Your task to perform on an android device: Open calendar and show me the second week of next month Image 0: 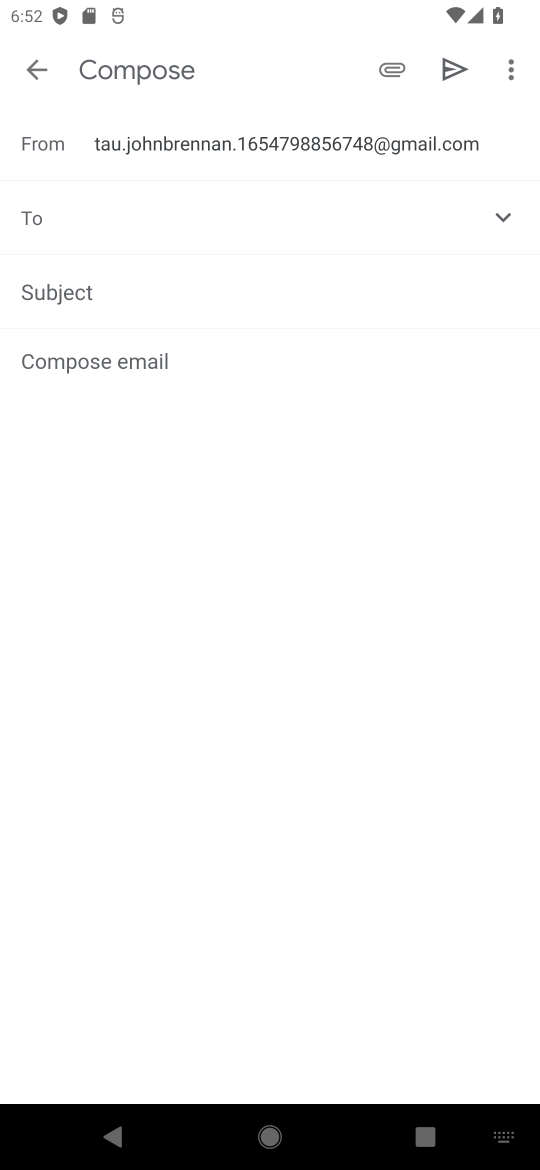
Step 0: press home button
Your task to perform on an android device: Open calendar and show me the second week of next month Image 1: 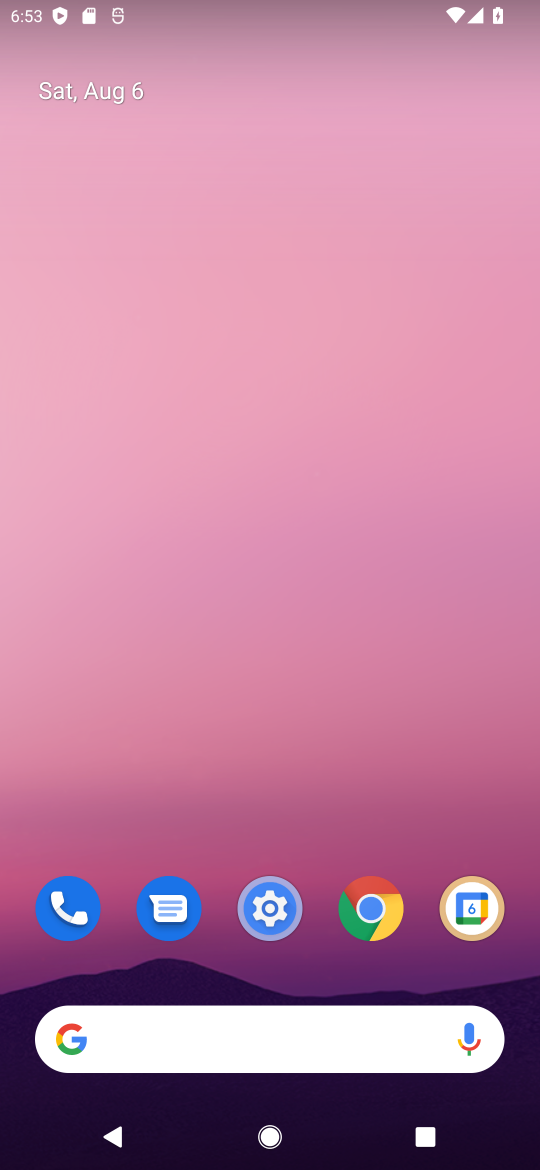
Step 1: drag from (303, 863) to (353, 21)
Your task to perform on an android device: Open calendar and show me the second week of next month Image 2: 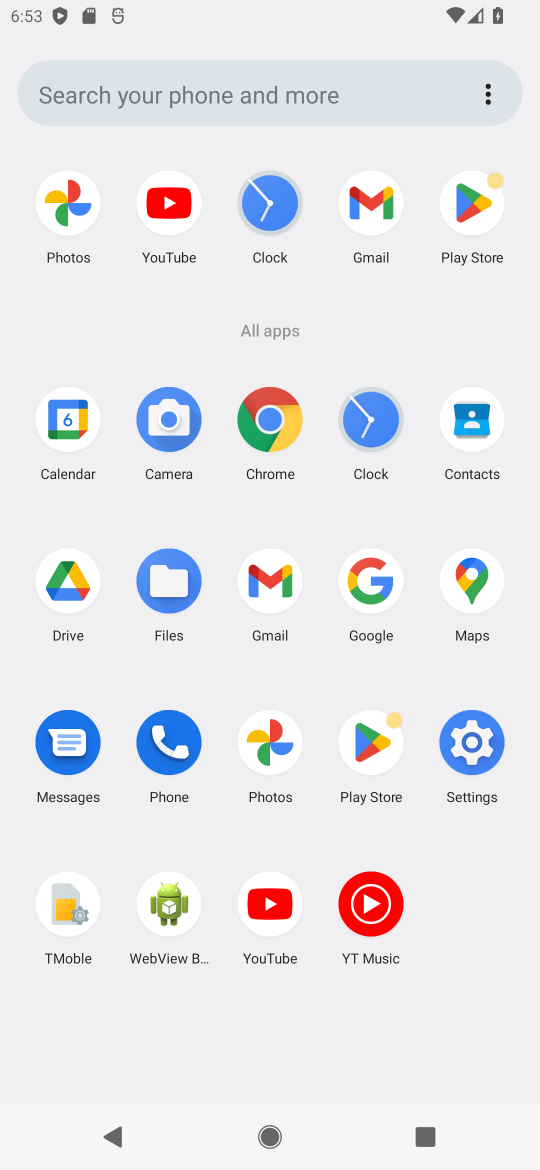
Step 2: click (72, 440)
Your task to perform on an android device: Open calendar and show me the second week of next month Image 3: 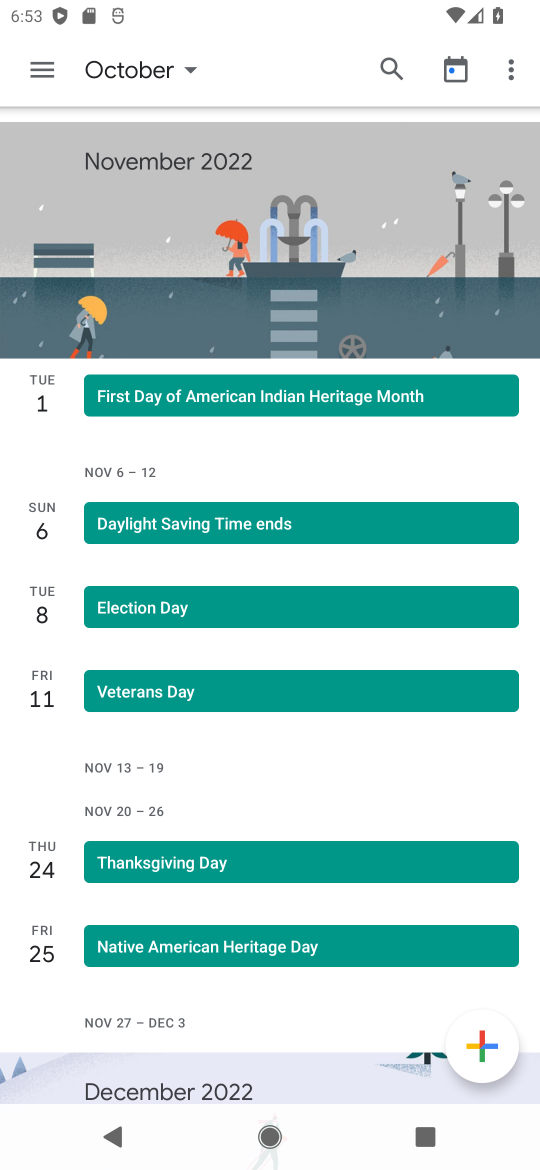
Step 3: click (169, 55)
Your task to perform on an android device: Open calendar and show me the second week of next month Image 4: 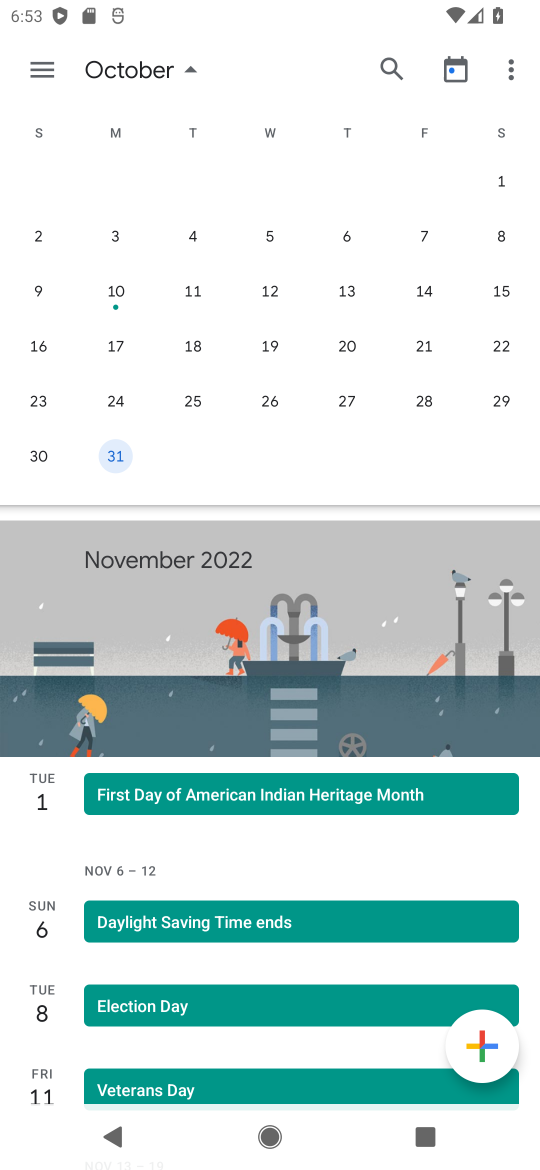
Step 4: drag from (136, 349) to (452, 372)
Your task to perform on an android device: Open calendar and show me the second week of next month Image 5: 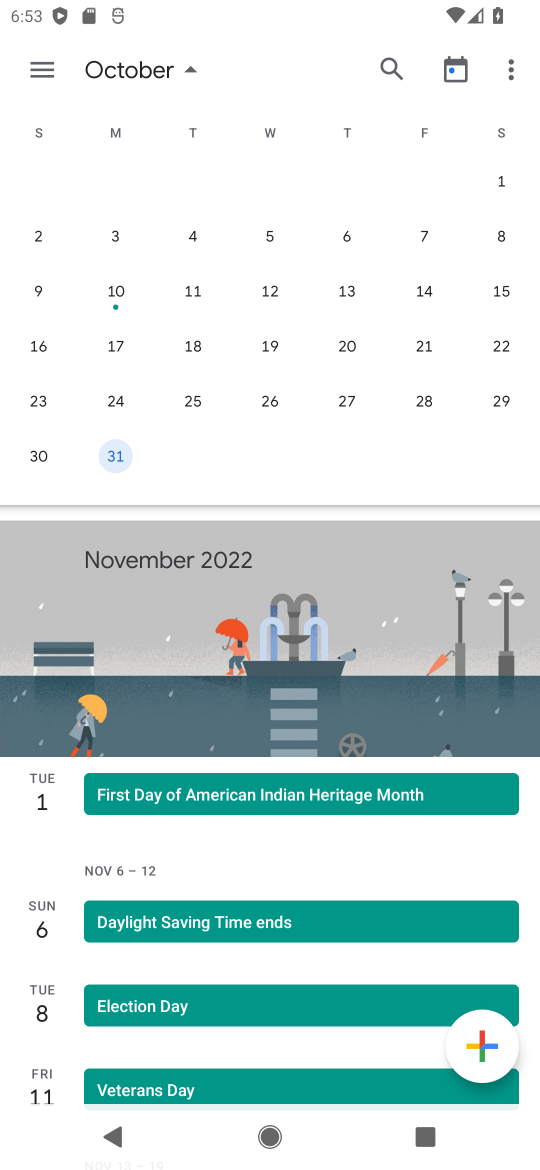
Step 5: drag from (36, 316) to (524, 310)
Your task to perform on an android device: Open calendar and show me the second week of next month Image 6: 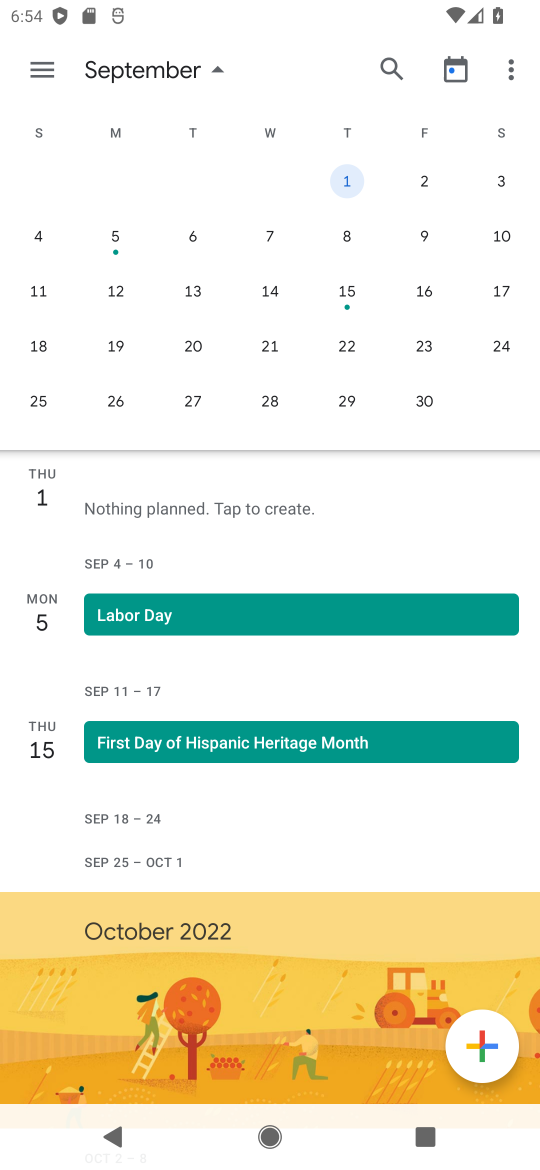
Step 6: click (341, 293)
Your task to perform on an android device: Open calendar and show me the second week of next month Image 7: 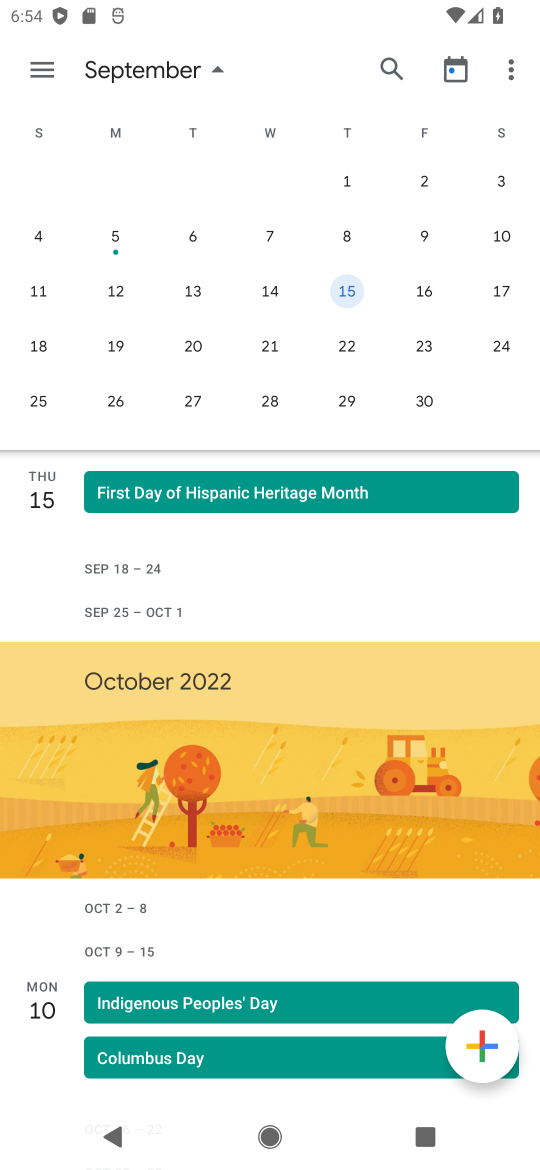
Step 7: click (42, 76)
Your task to perform on an android device: Open calendar and show me the second week of next month Image 8: 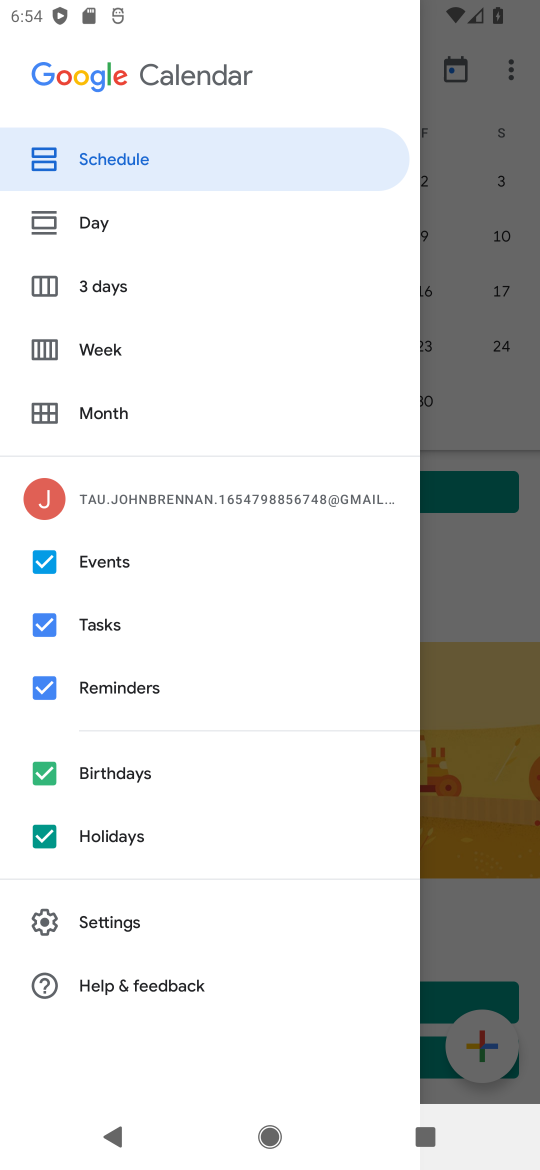
Step 8: click (95, 350)
Your task to perform on an android device: Open calendar and show me the second week of next month Image 9: 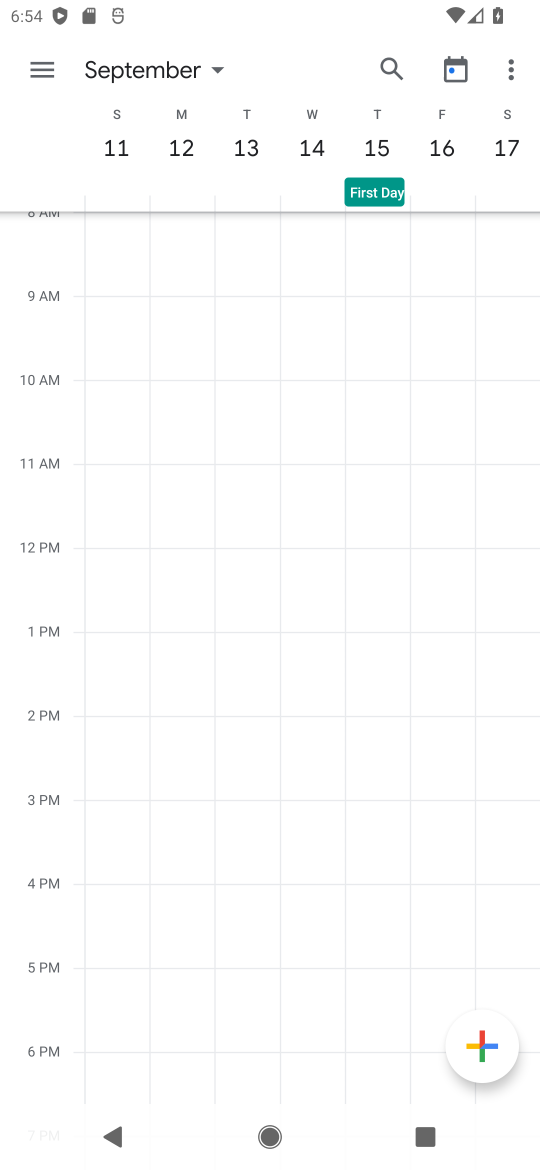
Step 9: task complete